Your task to perform on an android device: delete a single message in the gmail app Image 0: 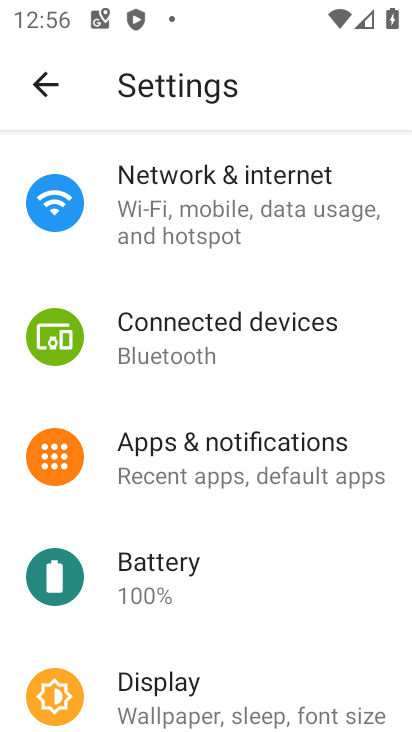
Step 0: press home button
Your task to perform on an android device: delete a single message in the gmail app Image 1: 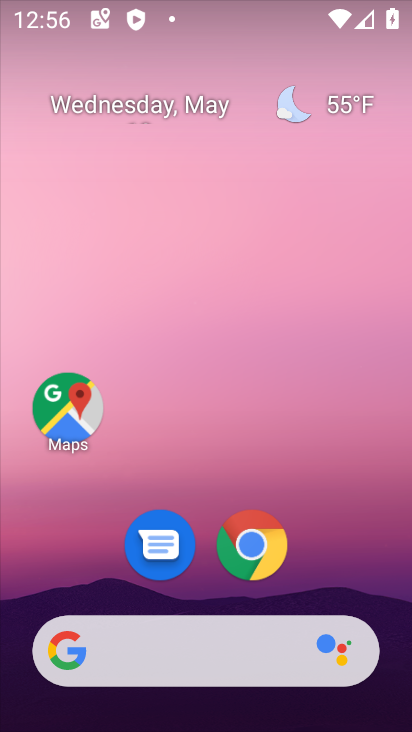
Step 1: drag from (325, 463) to (298, 0)
Your task to perform on an android device: delete a single message in the gmail app Image 2: 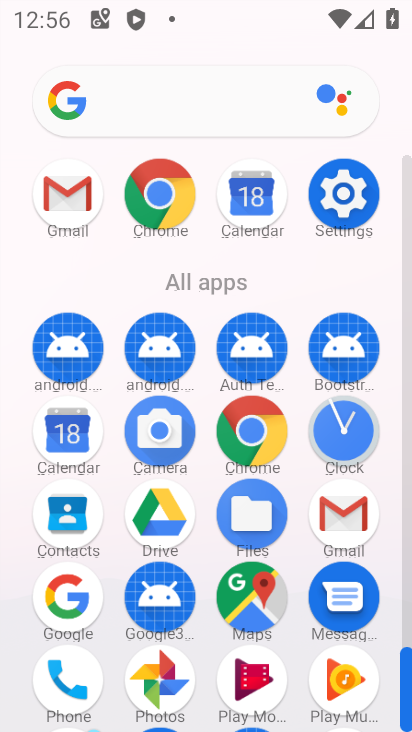
Step 2: click (338, 519)
Your task to perform on an android device: delete a single message in the gmail app Image 3: 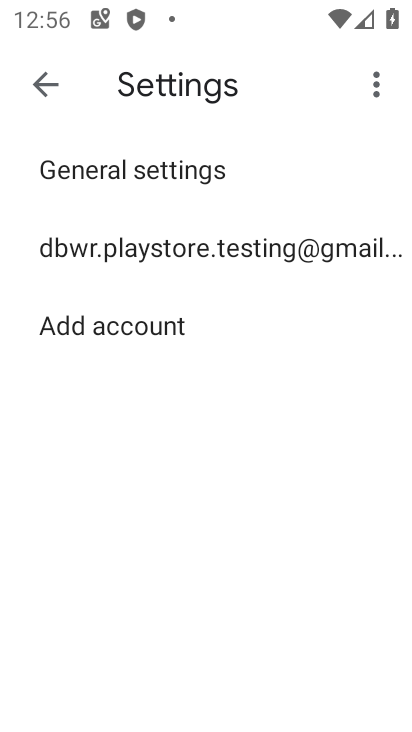
Step 3: click (50, 80)
Your task to perform on an android device: delete a single message in the gmail app Image 4: 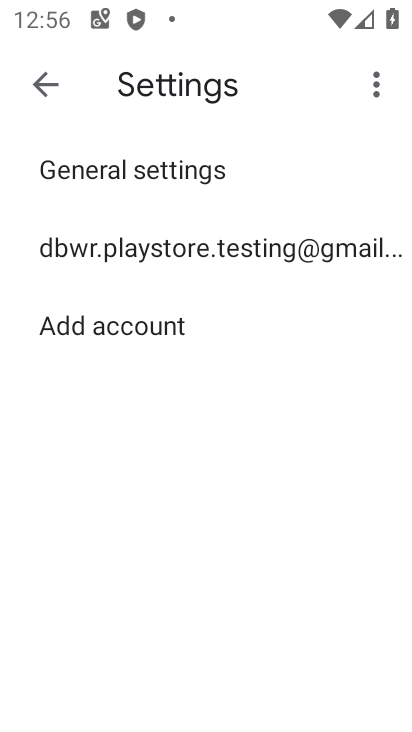
Step 4: click (46, 93)
Your task to perform on an android device: delete a single message in the gmail app Image 5: 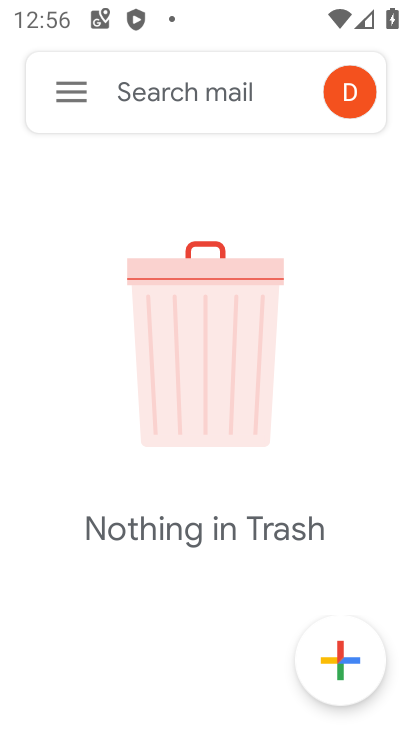
Step 5: click (61, 89)
Your task to perform on an android device: delete a single message in the gmail app Image 6: 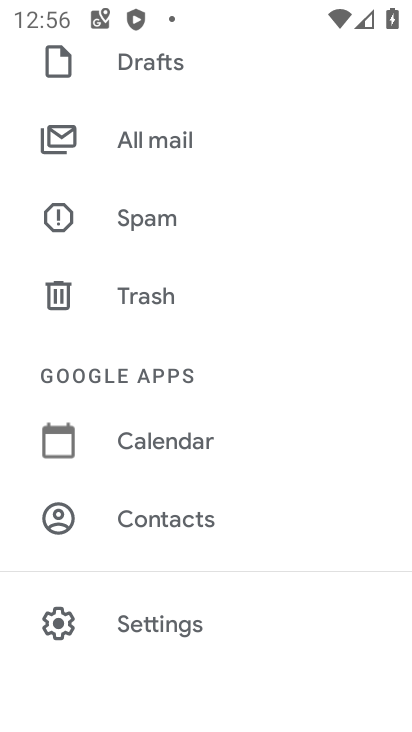
Step 6: click (173, 127)
Your task to perform on an android device: delete a single message in the gmail app Image 7: 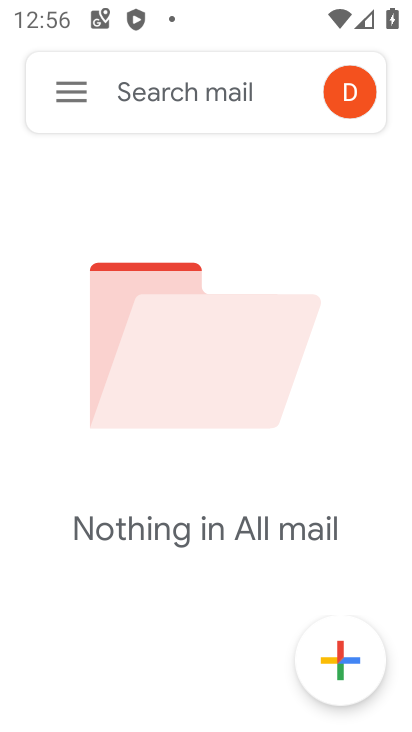
Step 7: task complete